Your task to perform on an android device: move an email to a new category in the gmail app Image 0: 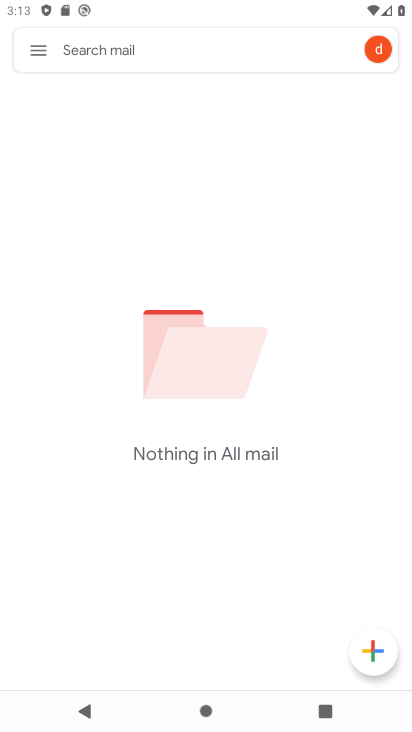
Step 0: task impossible